Your task to perform on an android device: Go to battery settings Image 0: 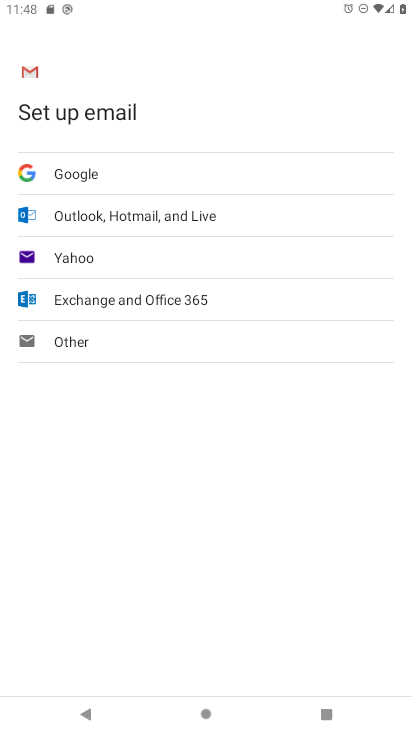
Step 0: press back button
Your task to perform on an android device: Go to battery settings Image 1: 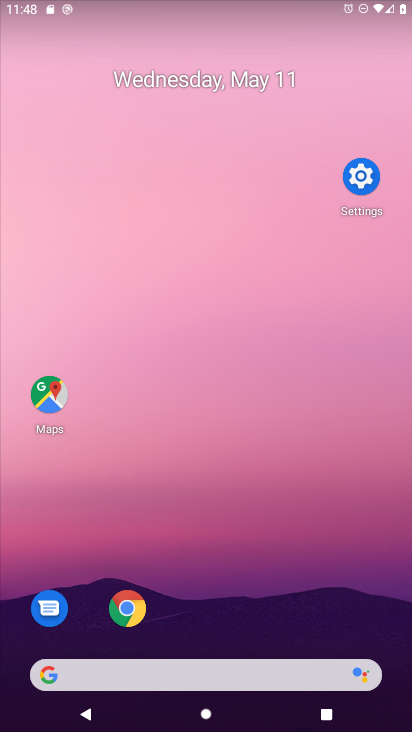
Step 1: drag from (374, 618) to (72, 124)
Your task to perform on an android device: Go to battery settings Image 2: 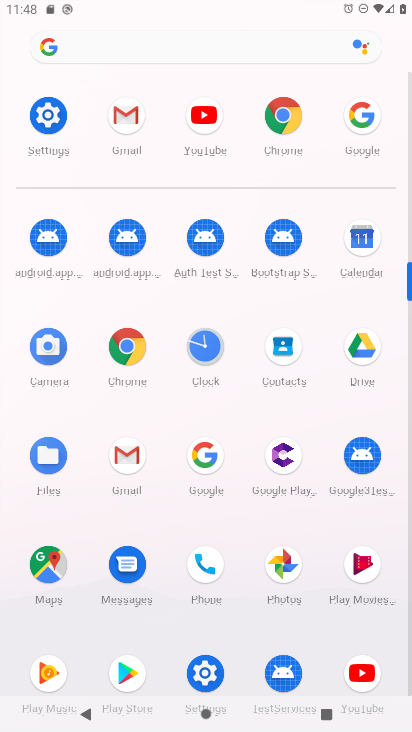
Step 2: click (54, 126)
Your task to perform on an android device: Go to battery settings Image 3: 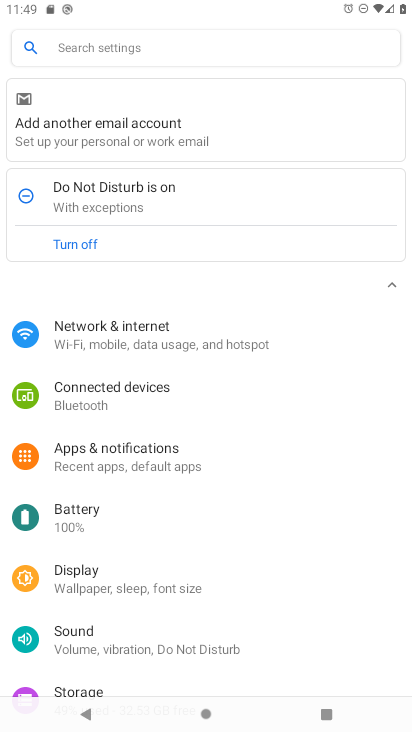
Step 3: click (71, 512)
Your task to perform on an android device: Go to battery settings Image 4: 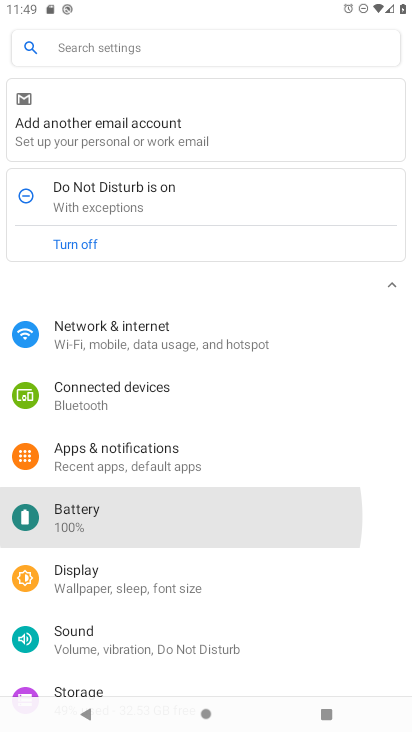
Step 4: click (73, 514)
Your task to perform on an android device: Go to battery settings Image 5: 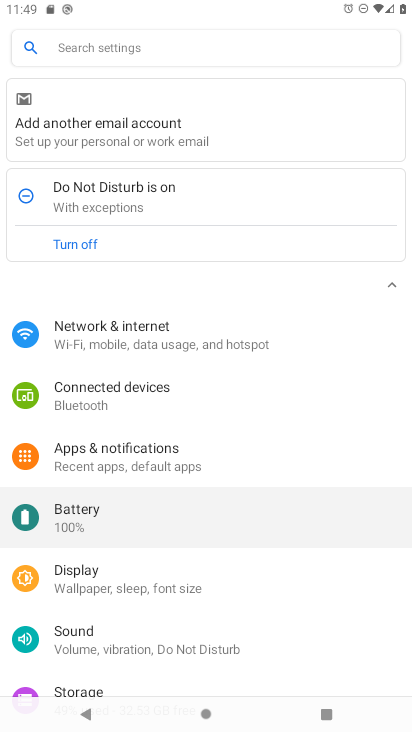
Step 5: click (73, 514)
Your task to perform on an android device: Go to battery settings Image 6: 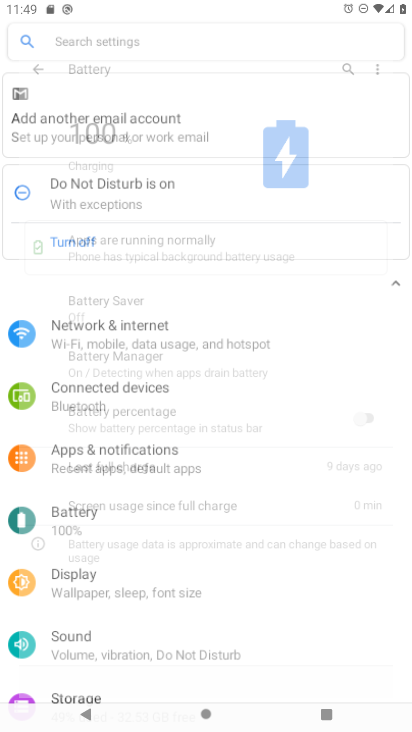
Step 6: click (73, 514)
Your task to perform on an android device: Go to battery settings Image 7: 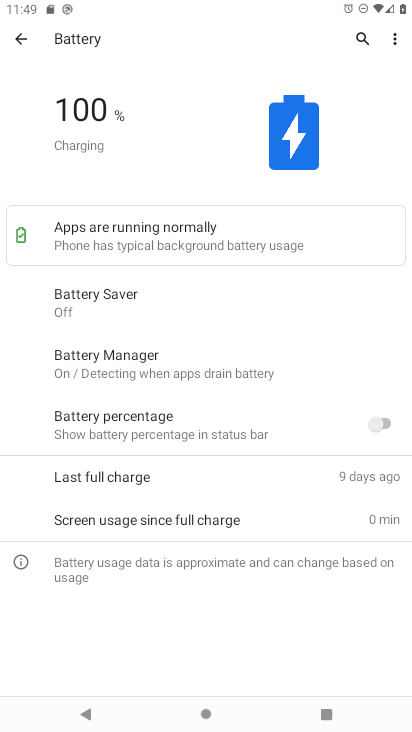
Step 7: task complete